Your task to perform on an android device: What's the weather? Image 0: 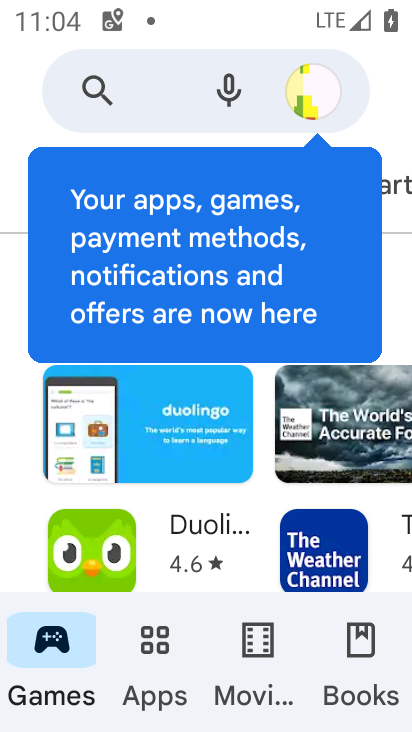
Step 0: press home button
Your task to perform on an android device: What's the weather? Image 1: 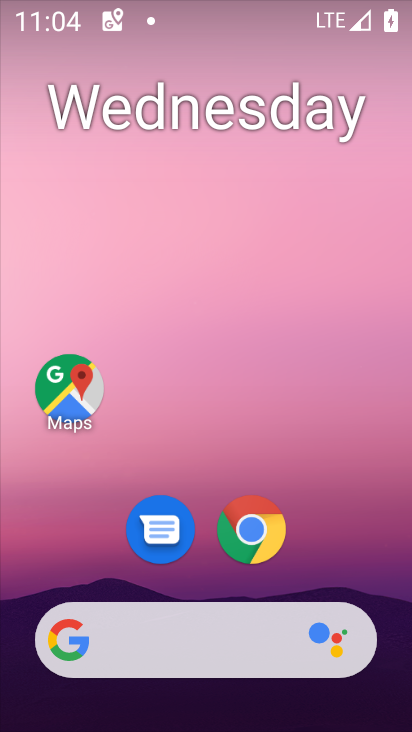
Step 1: drag from (12, 225) to (398, 252)
Your task to perform on an android device: What's the weather? Image 2: 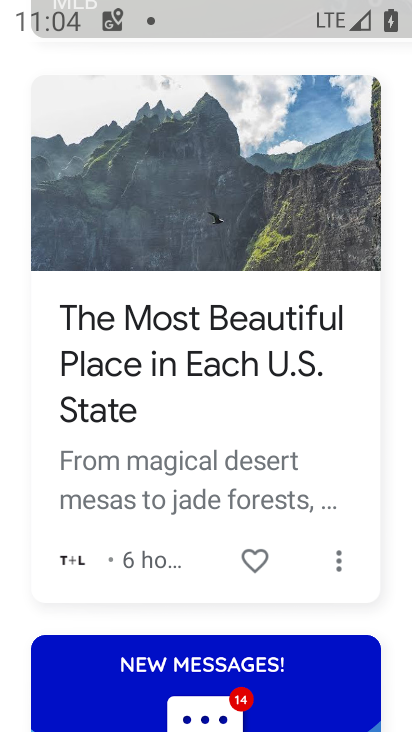
Step 2: drag from (218, 124) to (241, 433)
Your task to perform on an android device: What's the weather? Image 3: 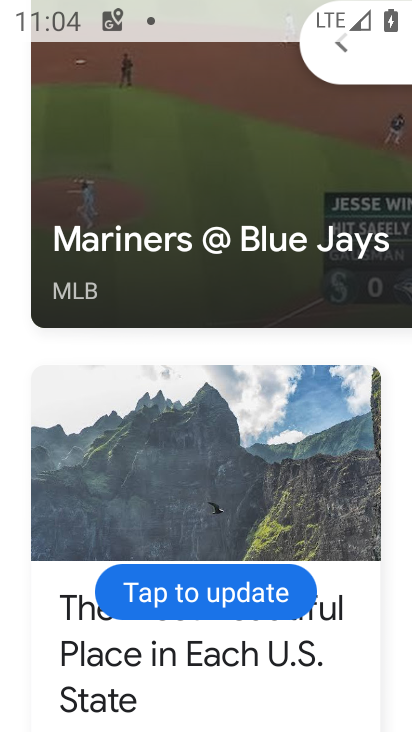
Step 3: drag from (280, 177) to (264, 417)
Your task to perform on an android device: What's the weather? Image 4: 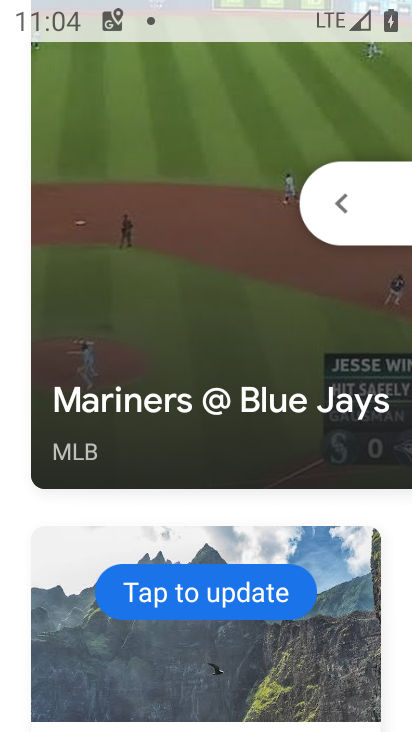
Step 4: click (192, 581)
Your task to perform on an android device: What's the weather? Image 5: 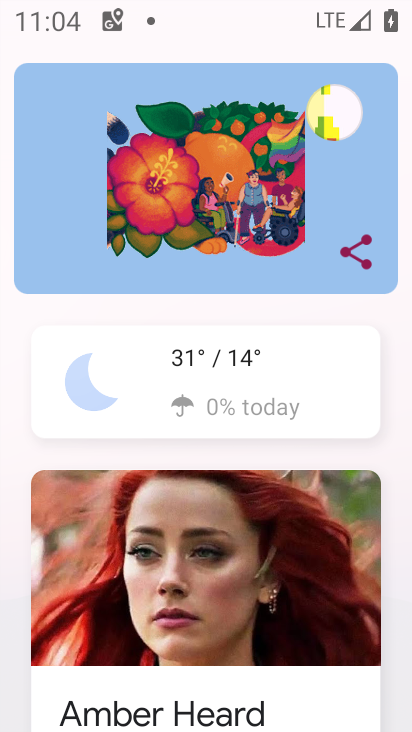
Step 5: click (247, 373)
Your task to perform on an android device: What's the weather? Image 6: 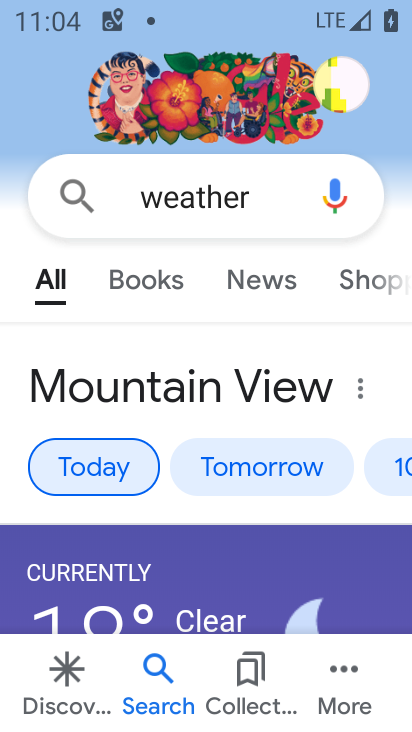
Step 6: task complete